Your task to perform on an android device: Go to Yahoo.com Image 0: 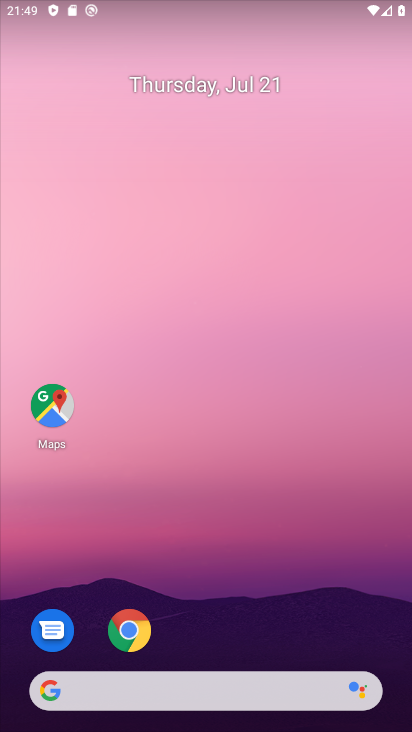
Step 0: drag from (217, 645) to (250, 88)
Your task to perform on an android device: Go to Yahoo.com Image 1: 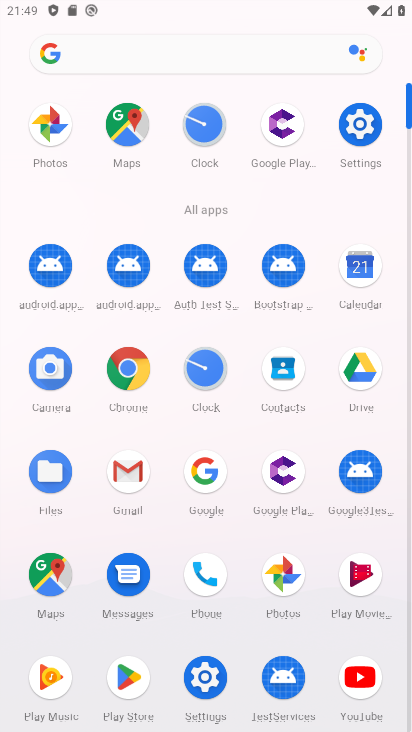
Step 1: click (118, 366)
Your task to perform on an android device: Go to Yahoo.com Image 2: 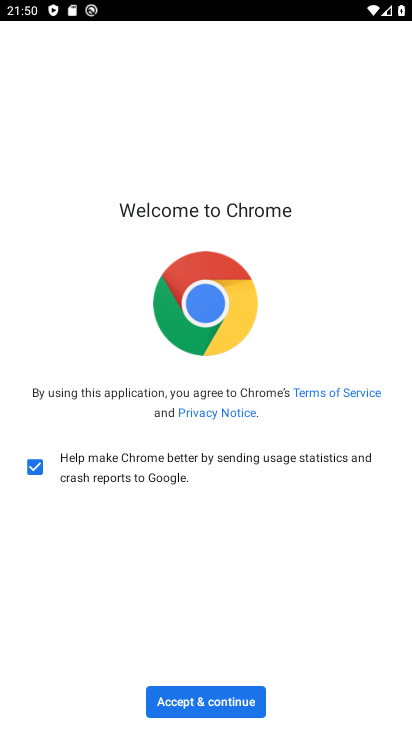
Step 2: click (228, 687)
Your task to perform on an android device: Go to Yahoo.com Image 3: 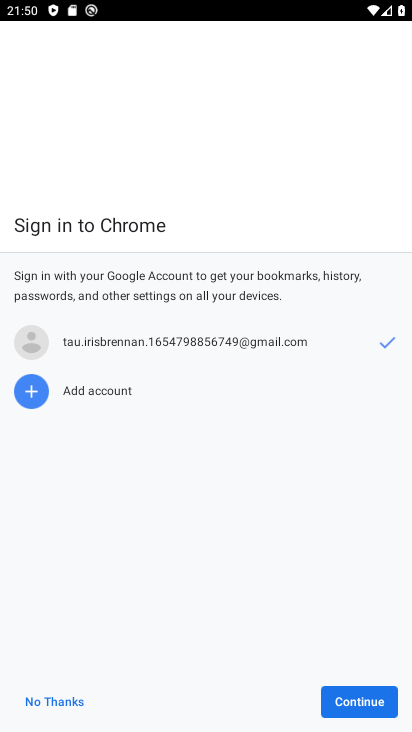
Step 3: click (349, 709)
Your task to perform on an android device: Go to Yahoo.com Image 4: 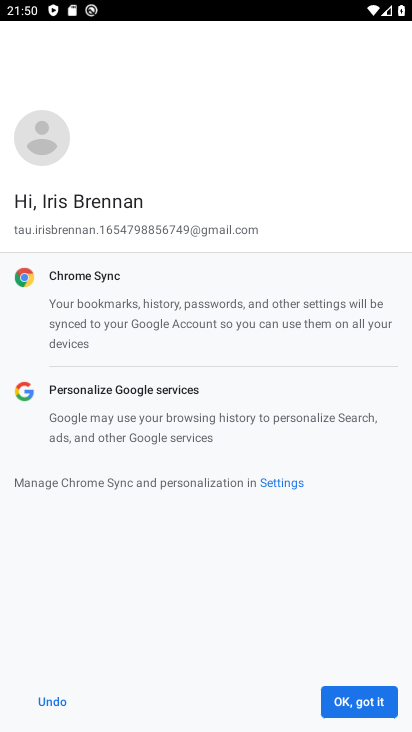
Step 4: click (348, 705)
Your task to perform on an android device: Go to Yahoo.com Image 5: 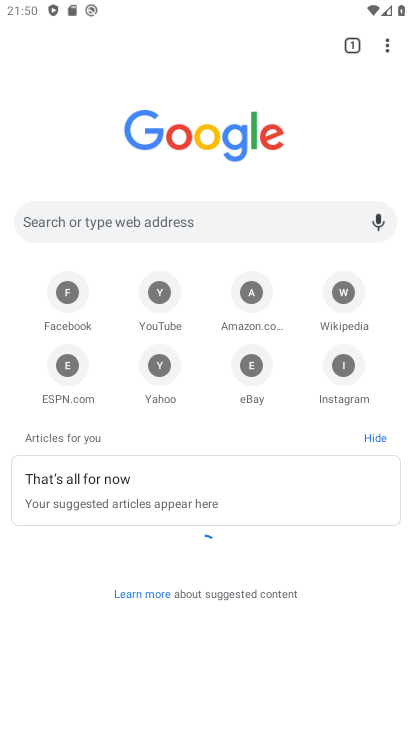
Step 5: click (152, 362)
Your task to perform on an android device: Go to Yahoo.com Image 6: 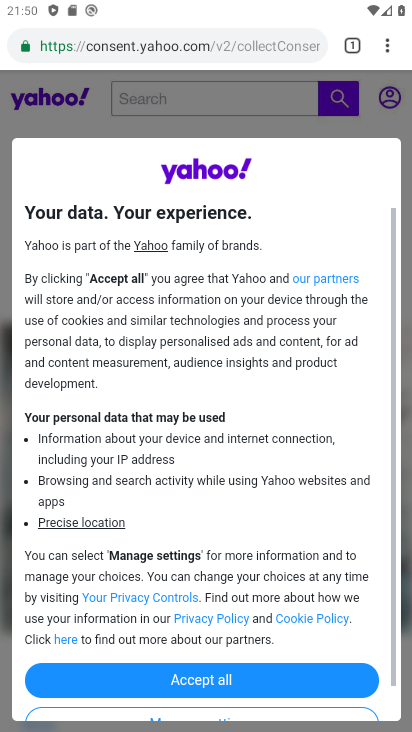
Step 6: click (251, 675)
Your task to perform on an android device: Go to Yahoo.com Image 7: 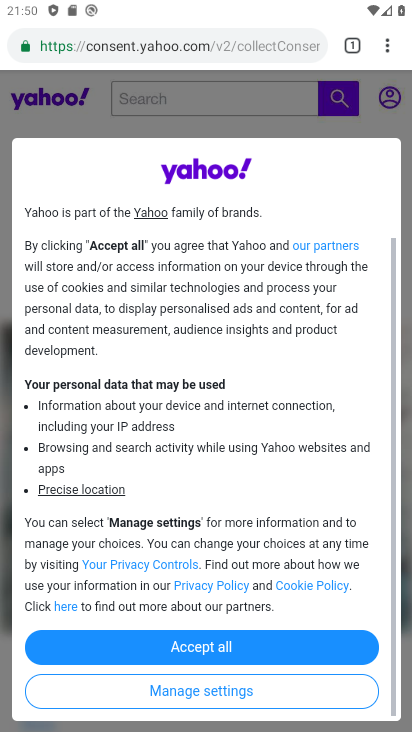
Step 7: click (263, 643)
Your task to perform on an android device: Go to Yahoo.com Image 8: 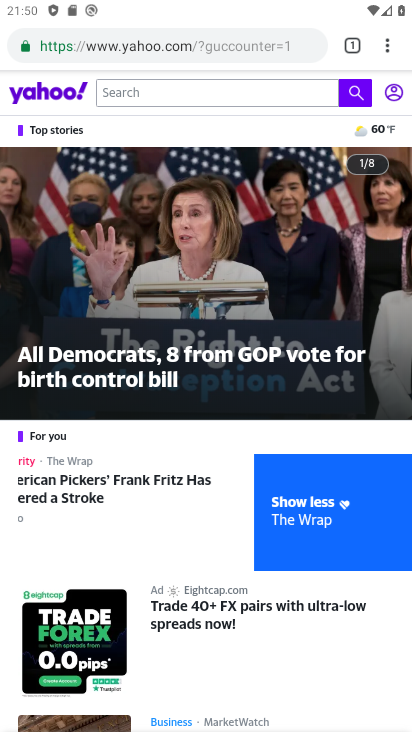
Step 8: task complete